Your task to perform on an android device: Go to Wikipedia Image 0: 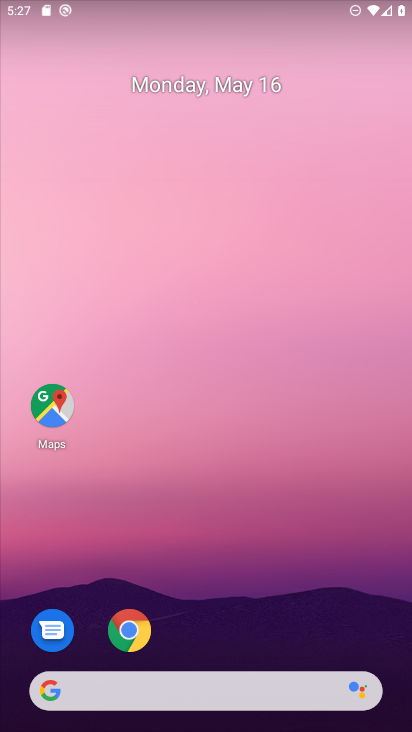
Step 0: drag from (357, 728) to (403, 731)
Your task to perform on an android device: Go to Wikipedia Image 1: 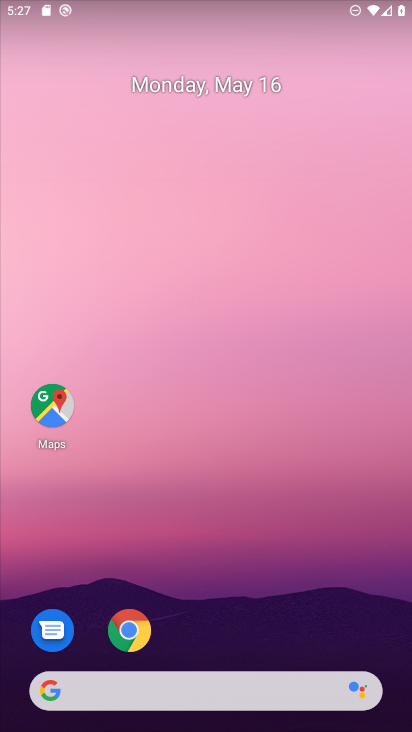
Step 1: click (121, 642)
Your task to perform on an android device: Go to Wikipedia Image 2: 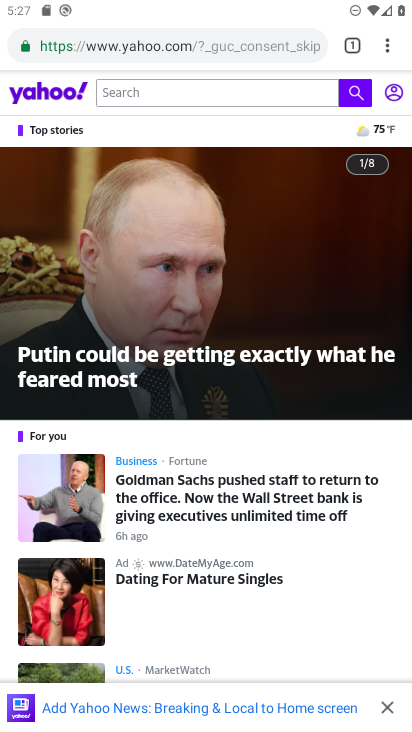
Step 2: click (217, 38)
Your task to perform on an android device: Go to Wikipedia Image 3: 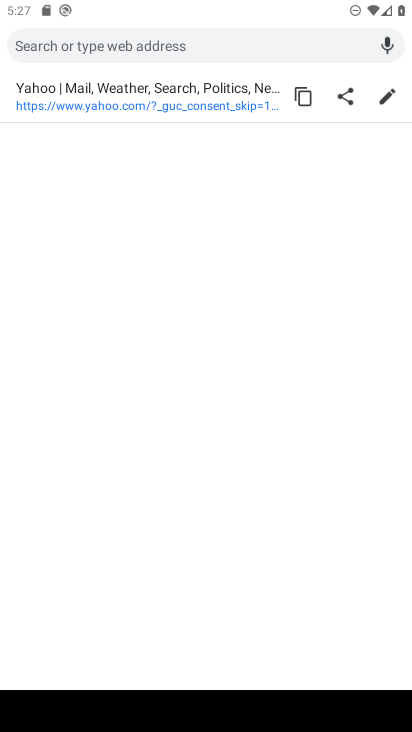
Step 3: type "Wikipedia"
Your task to perform on an android device: Go to Wikipedia Image 4: 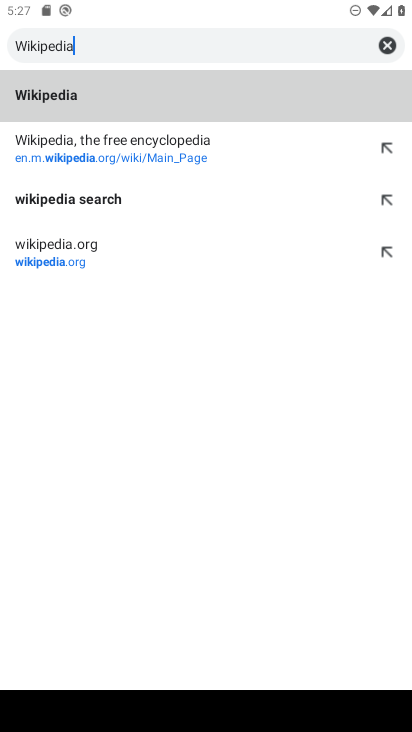
Step 4: click (57, 89)
Your task to perform on an android device: Go to Wikipedia Image 5: 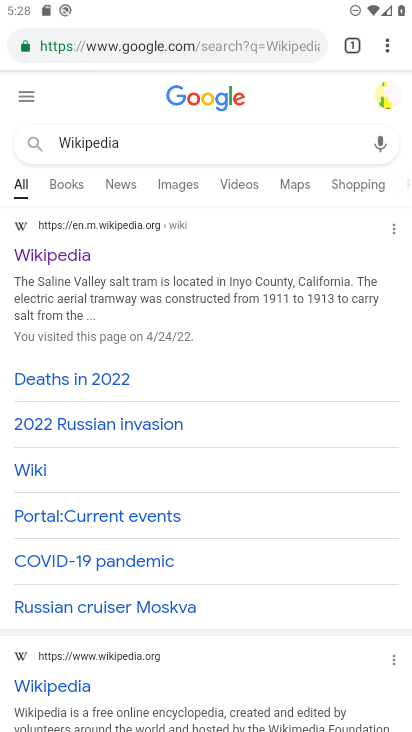
Step 5: click (170, 59)
Your task to perform on an android device: Go to Wikipedia Image 6: 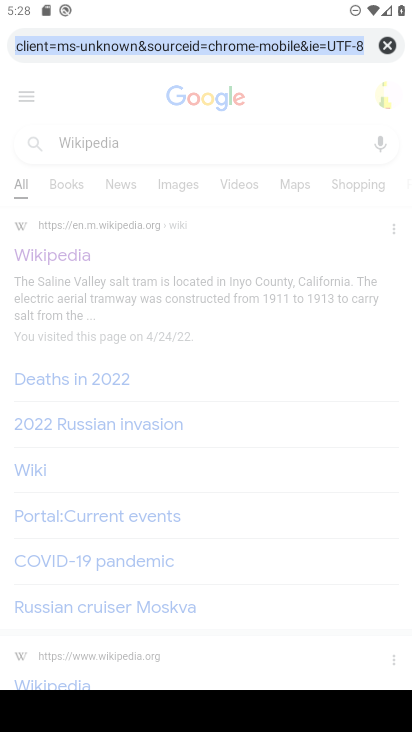
Step 6: click (381, 39)
Your task to perform on an android device: Go to Wikipedia Image 7: 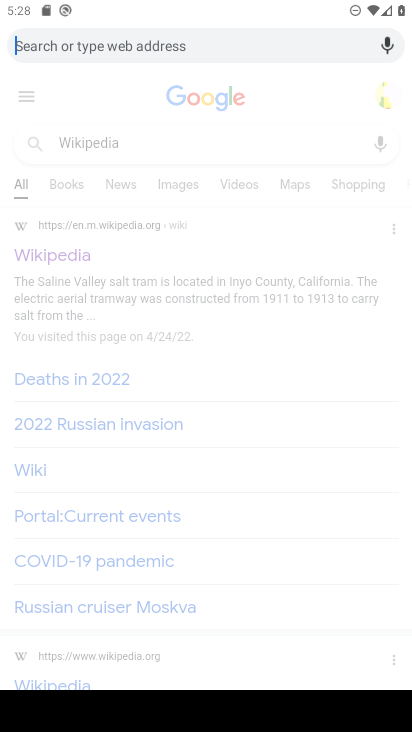
Step 7: type "Wikipedia"
Your task to perform on an android device: Go to Wikipedia Image 8: 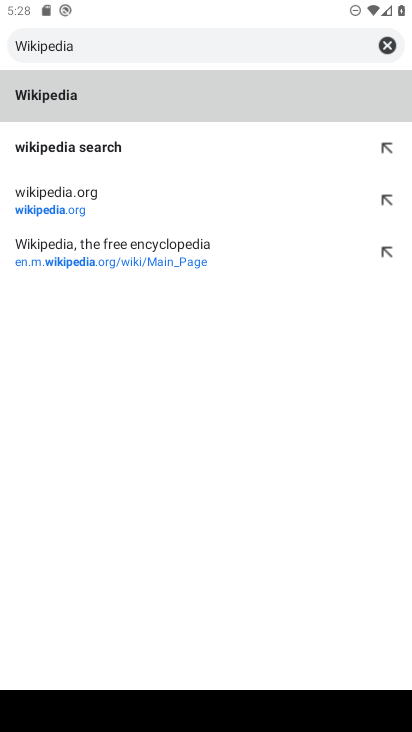
Step 8: click (23, 84)
Your task to perform on an android device: Go to Wikipedia Image 9: 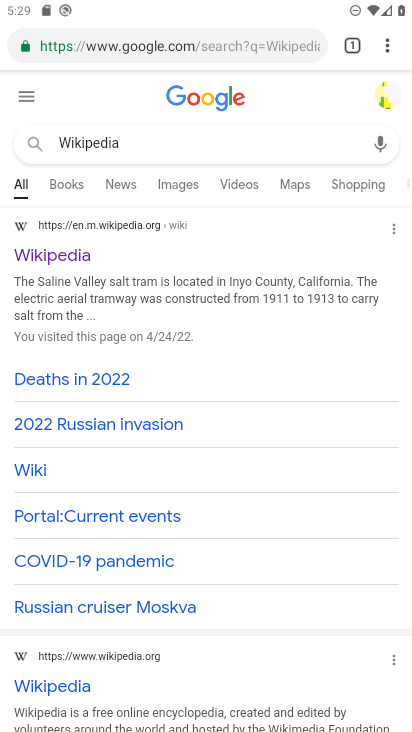
Step 9: click (40, 261)
Your task to perform on an android device: Go to Wikipedia Image 10: 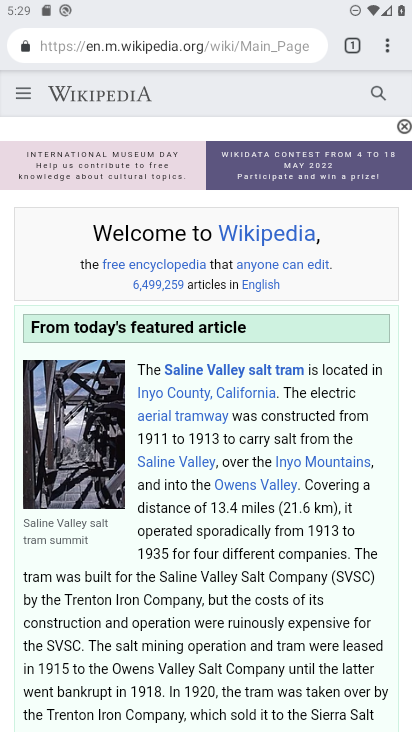
Step 10: task complete